Your task to perform on an android device: check the backup settings in the google photos Image 0: 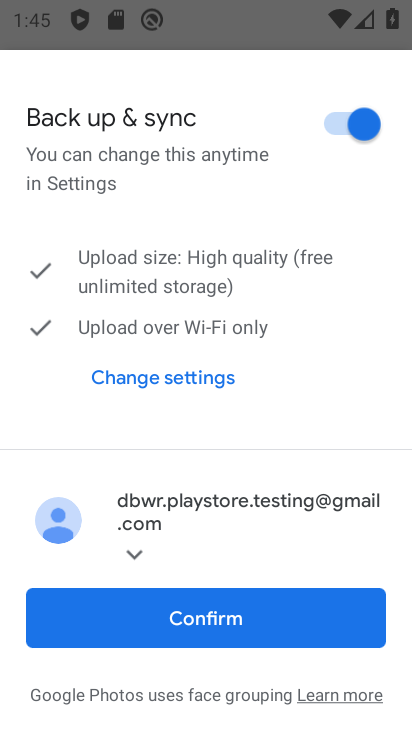
Step 0: click (193, 392)
Your task to perform on an android device: check the backup settings in the google photos Image 1: 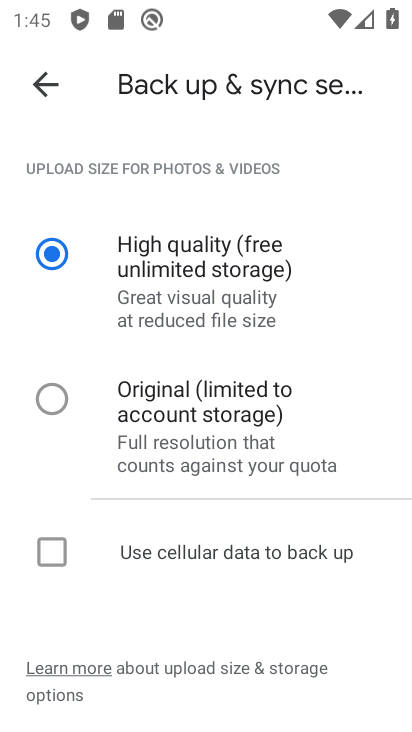
Step 1: click (193, 392)
Your task to perform on an android device: check the backup settings in the google photos Image 2: 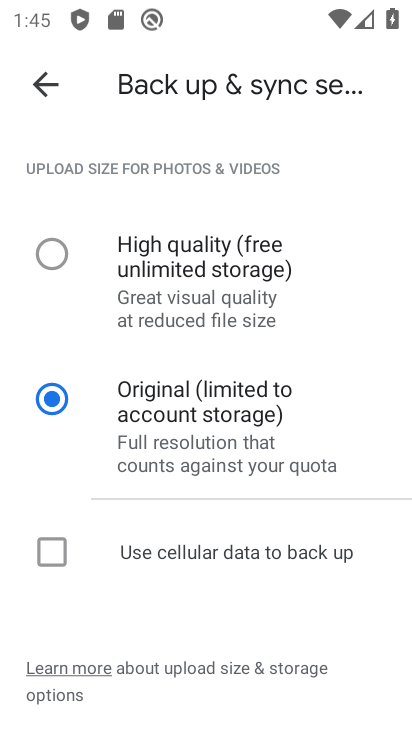
Step 2: task complete